Your task to perform on an android device: toggle improve location accuracy Image 0: 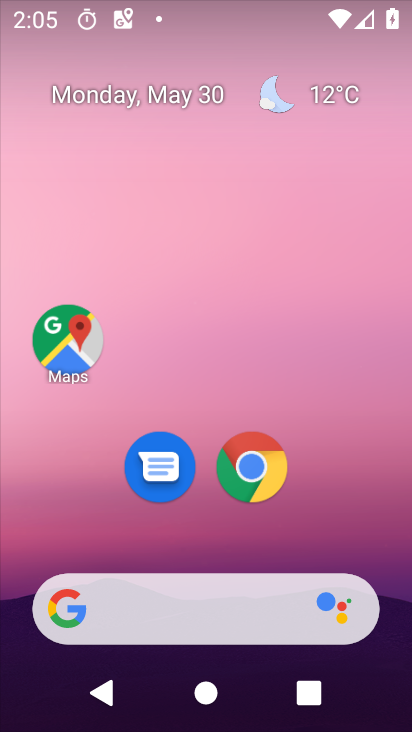
Step 0: drag from (392, 669) to (378, 99)
Your task to perform on an android device: toggle improve location accuracy Image 1: 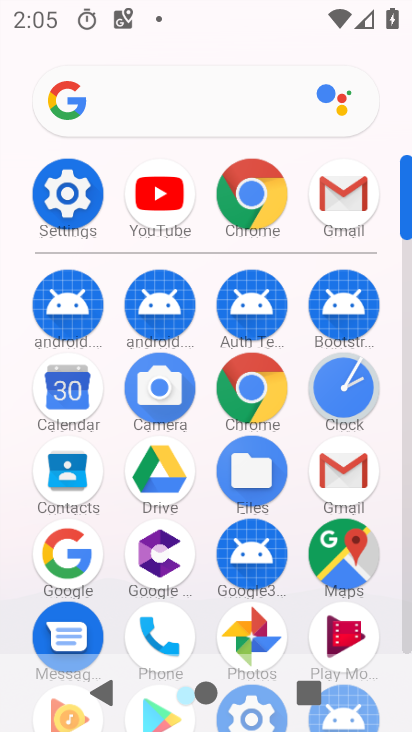
Step 1: click (37, 188)
Your task to perform on an android device: toggle improve location accuracy Image 2: 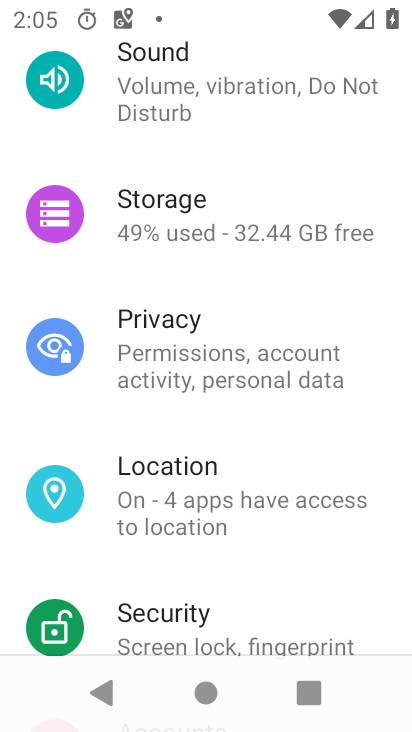
Step 2: click (163, 514)
Your task to perform on an android device: toggle improve location accuracy Image 3: 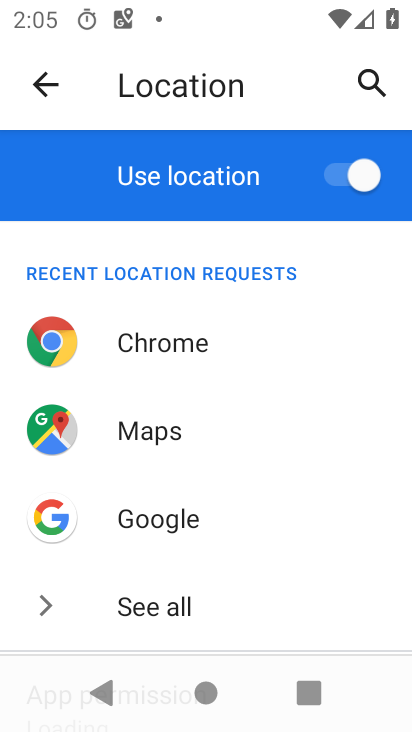
Step 3: drag from (282, 590) to (287, 238)
Your task to perform on an android device: toggle improve location accuracy Image 4: 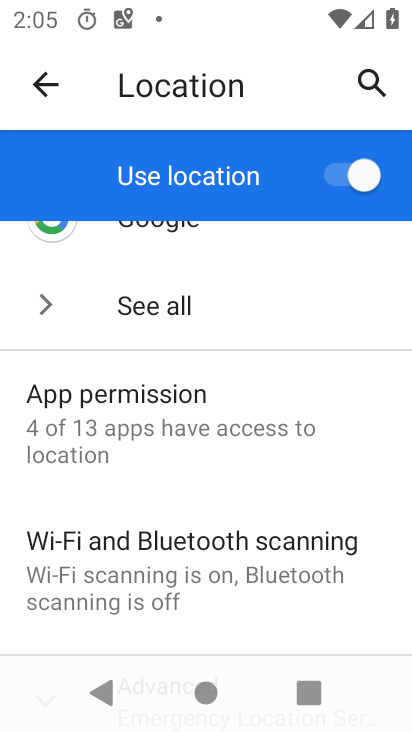
Step 4: drag from (317, 600) to (318, 214)
Your task to perform on an android device: toggle improve location accuracy Image 5: 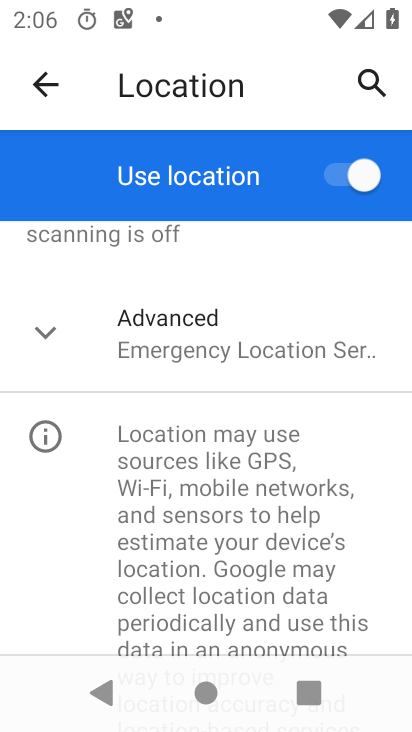
Step 5: click (35, 323)
Your task to perform on an android device: toggle improve location accuracy Image 6: 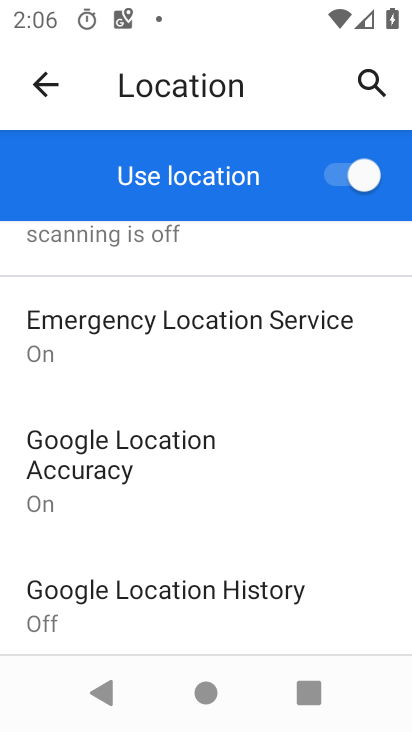
Step 6: click (83, 460)
Your task to perform on an android device: toggle improve location accuracy Image 7: 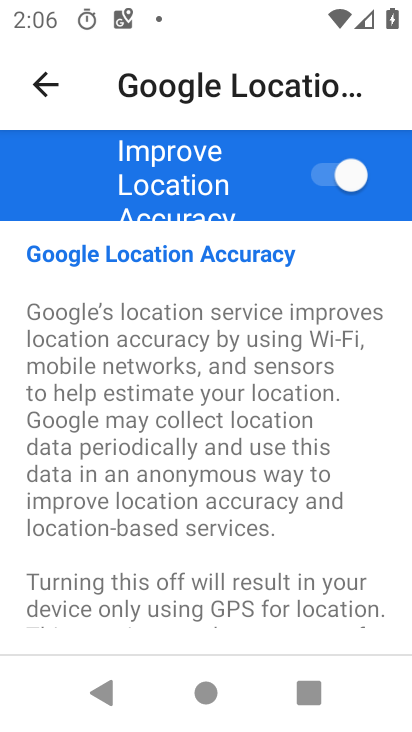
Step 7: click (321, 167)
Your task to perform on an android device: toggle improve location accuracy Image 8: 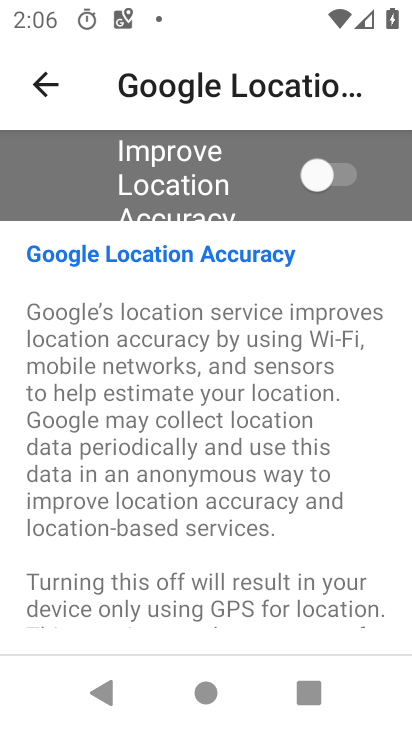
Step 8: task complete